Your task to perform on an android device: Go to privacy settings Image 0: 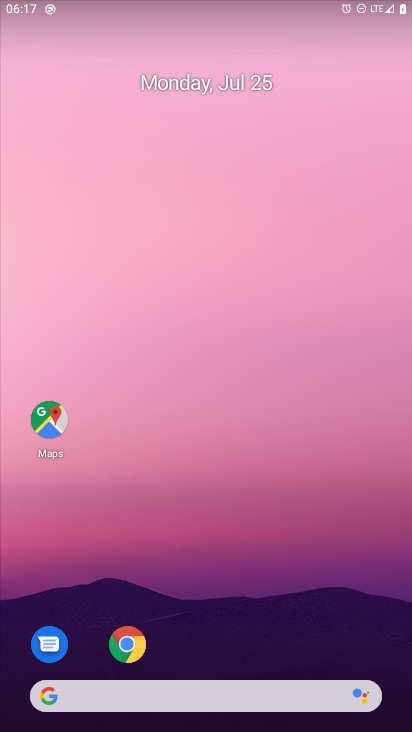
Step 0: press home button
Your task to perform on an android device: Go to privacy settings Image 1: 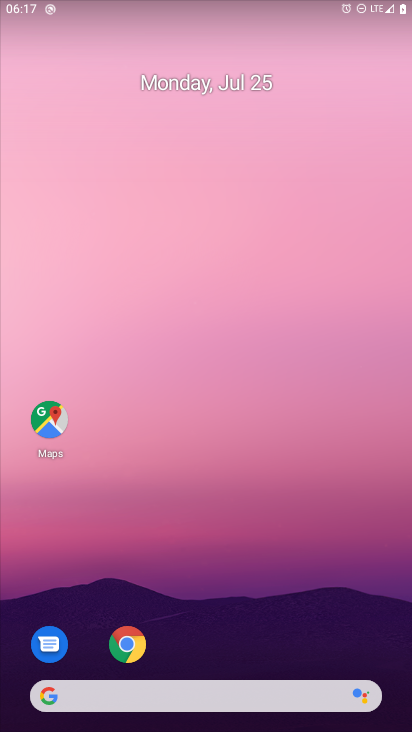
Step 1: drag from (268, 645) to (259, 129)
Your task to perform on an android device: Go to privacy settings Image 2: 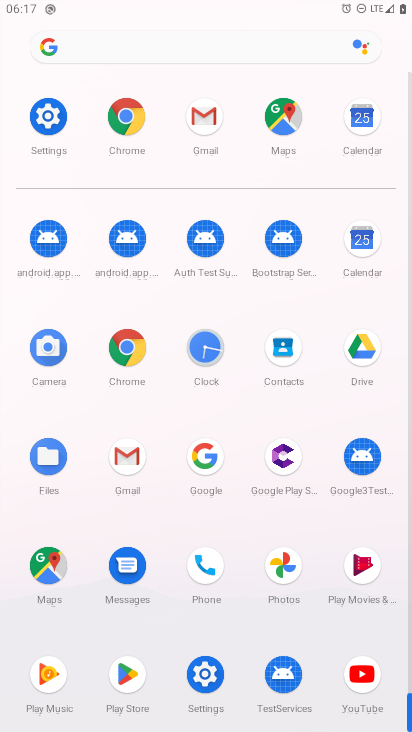
Step 2: click (54, 121)
Your task to perform on an android device: Go to privacy settings Image 3: 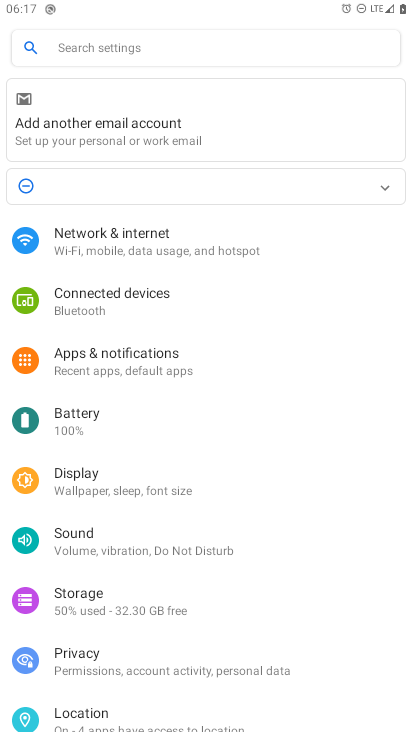
Step 3: click (93, 656)
Your task to perform on an android device: Go to privacy settings Image 4: 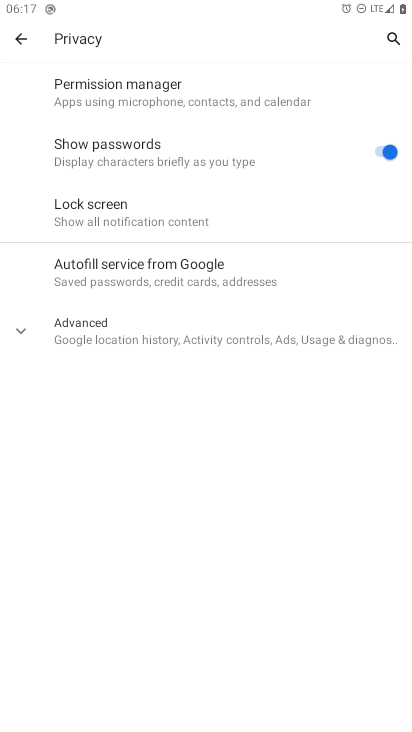
Step 4: task complete